Your task to perform on an android device: Open calendar and show me the fourth week of next month Image 0: 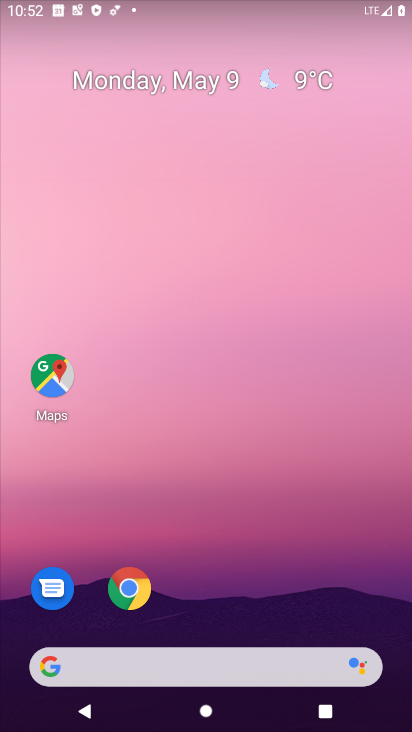
Step 0: press home button
Your task to perform on an android device: Open calendar and show me the fourth week of next month Image 1: 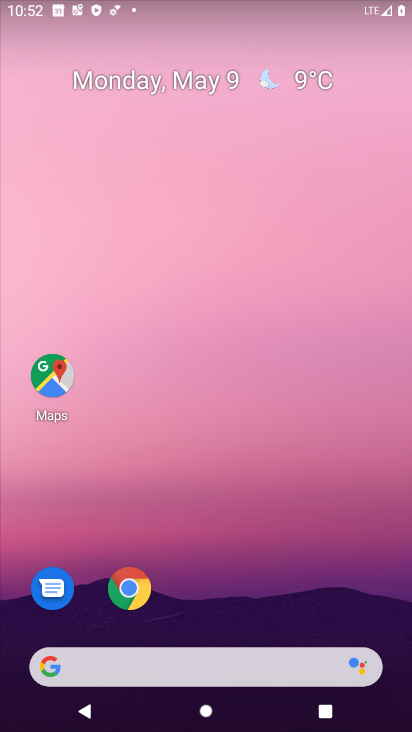
Step 1: drag from (149, 663) to (309, 108)
Your task to perform on an android device: Open calendar and show me the fourth week of next month Image 2: 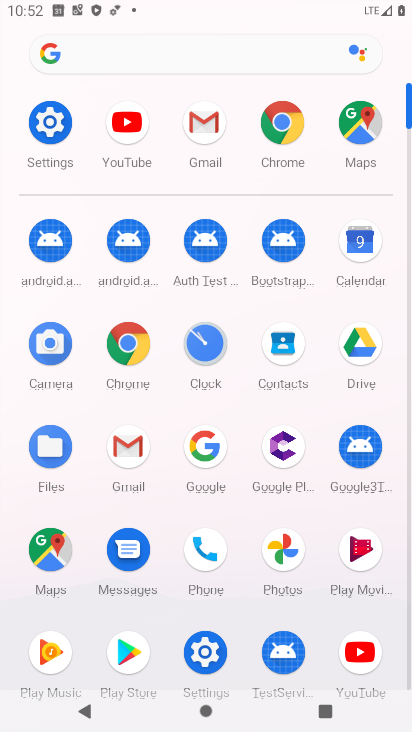
Step 2: click (365, 249)
Your task to perform on an android device: Open calendar and show me the fourth week of next month Image 3: 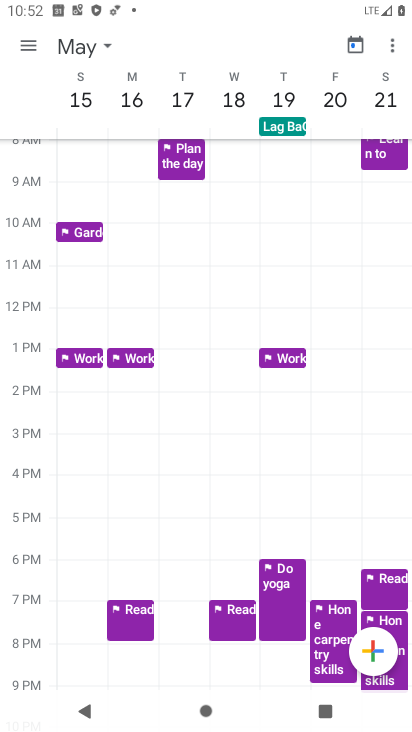
Step 3: click (74, 48)
Your task to perform on an android device: Open calendar and show me the fourth week of next month Image 4: 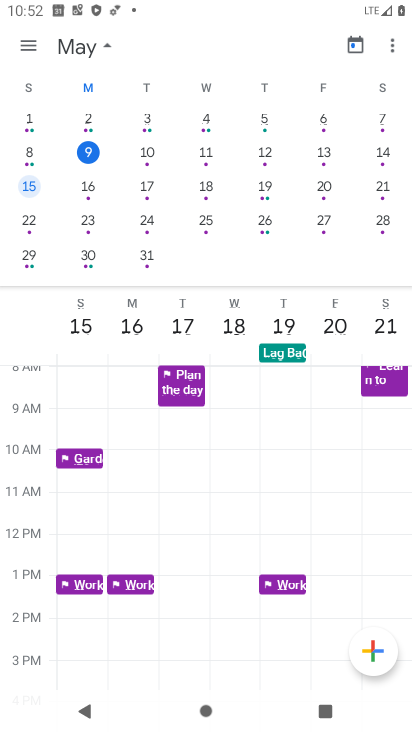
Step 4: drag from (359, 187) to (40, 207)
Your task to perform on an android device: Open calendar and show me the fourth week of next month Image 5: 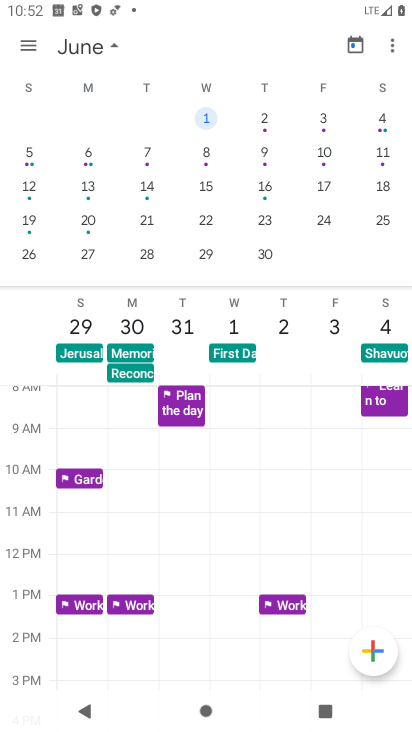
Step 5: click (27, 221)
Your task to perform on an android device: Open calendar and show me the fourth week of next month Image 6: 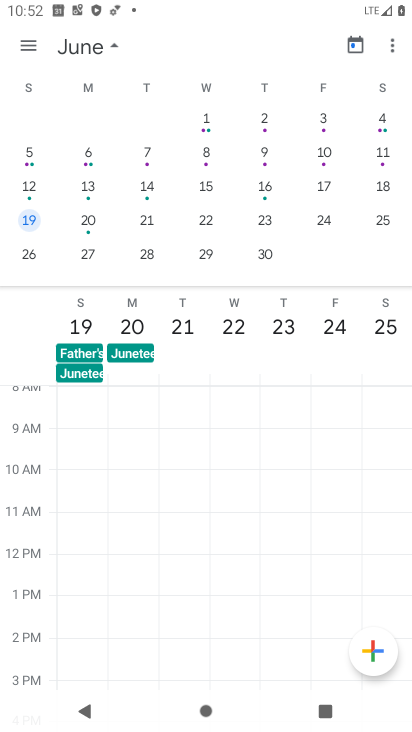
Step 6: click (34, 44)
Your task to perform on an android device: Open calendar and show me the fourth week of next month Image 7: 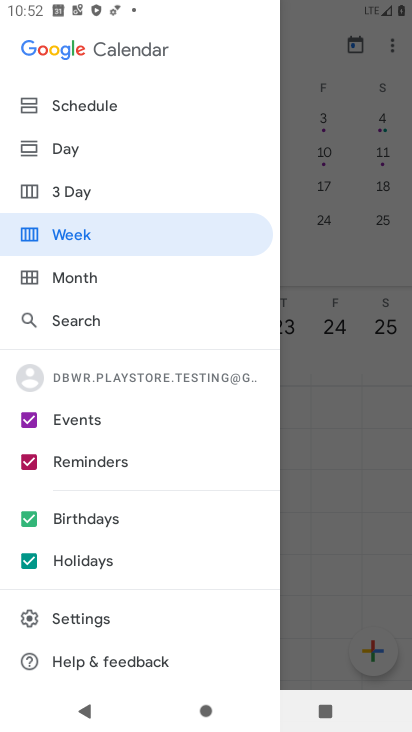
Step 7: click (87, 233)
Your task to perform on an android device: Open calendar and show me the fourth week of next month Image 8: 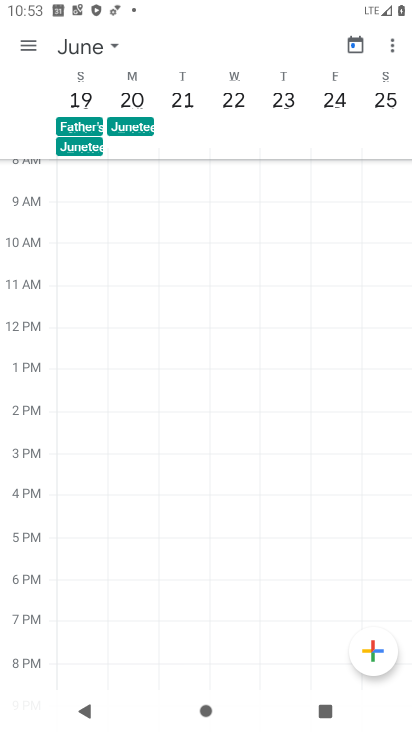
Step 8: task complete